Your task to perform on an android device: turn on sleep mode Image 0: 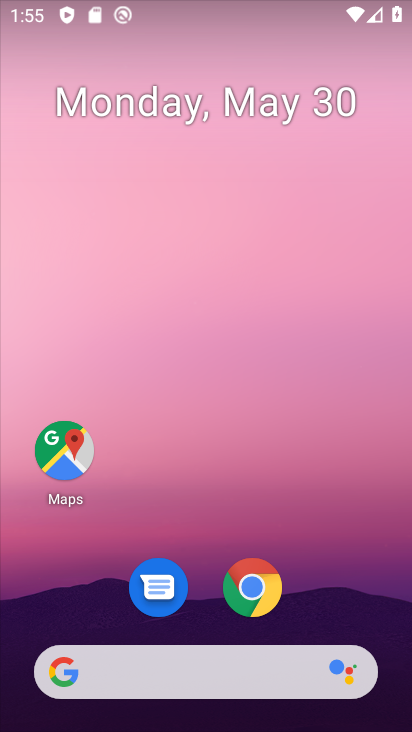
Step 0: drag from (183, 16) to (193, 502)
Your task to perform on an android device: turn on sleep mode Image 1: 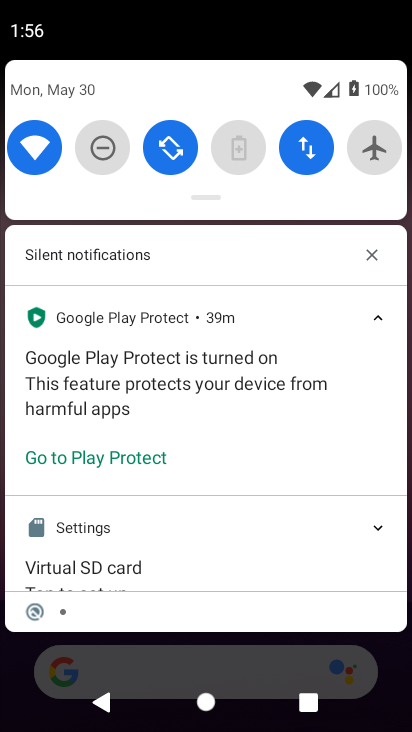
Step 1: drag from (201, 206) to (250, 473)
Your task to perform on an android device: turn on sleep mode Image 2: 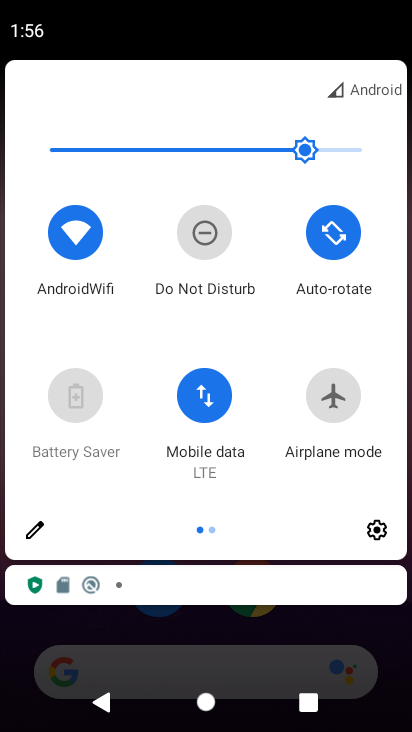
Step 2: click (43, 524)
Your task to perform on an android device: turn on sleep mode Image 3: 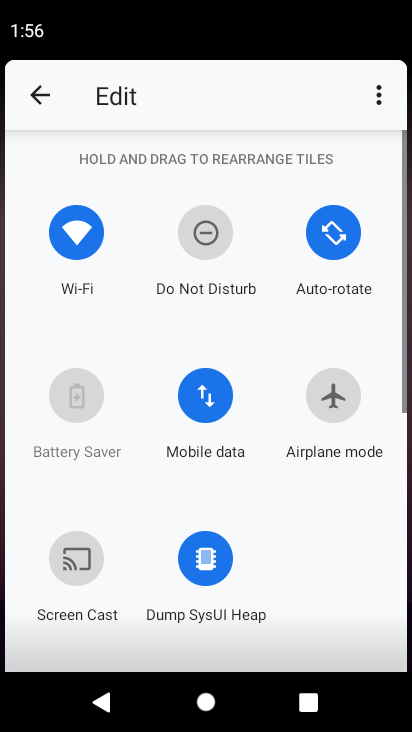
Step 3: task complete